Your task to perform on an android device: Do I have any events today? Image 0: 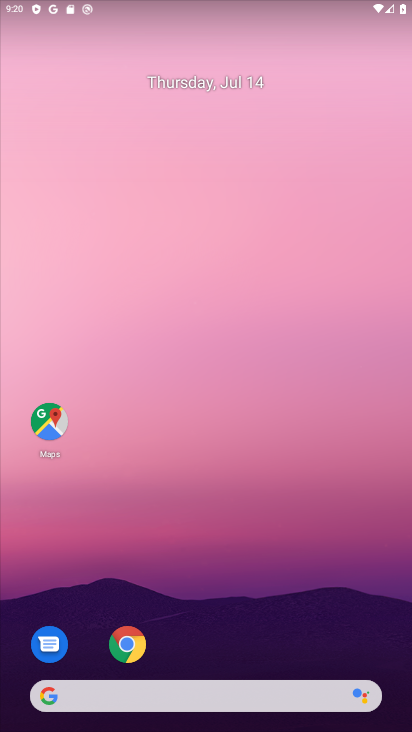
Step 0: drag from (239, 631) to (291, 124)
Your task to perform on an android device: Do I have any events today? Image 1: 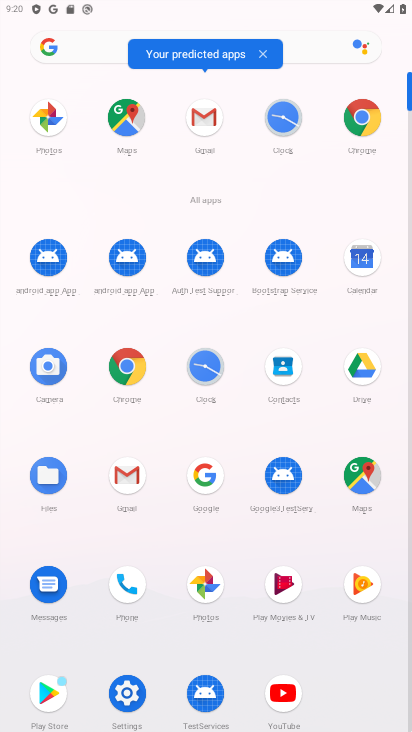
Step 1: click (356, 251)
Your task to perform on an android device: Do I have any events today? Image 2: 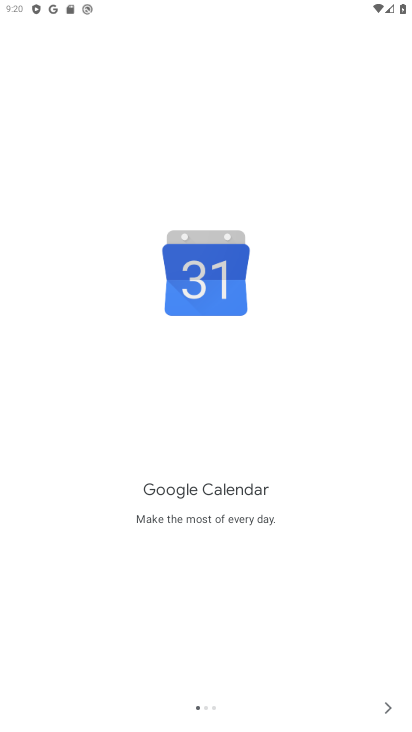
Step 2: click (387, 700)
Your task to perform on an android device: Do I have any events today? Image 3: 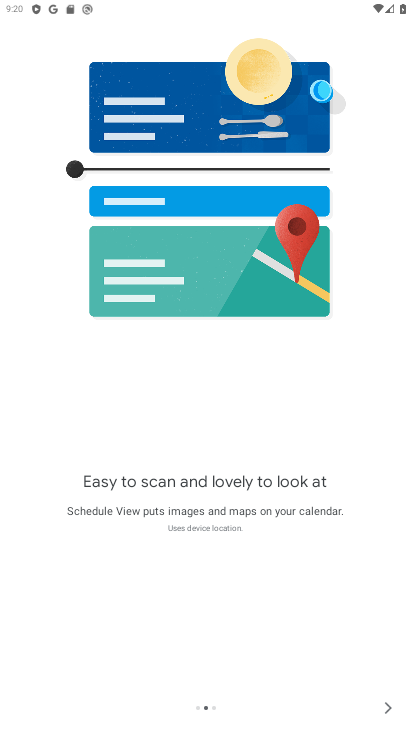
Step 3: click (386, 701)
Your task to perform on an android device: Do I have any events today? Image 4: 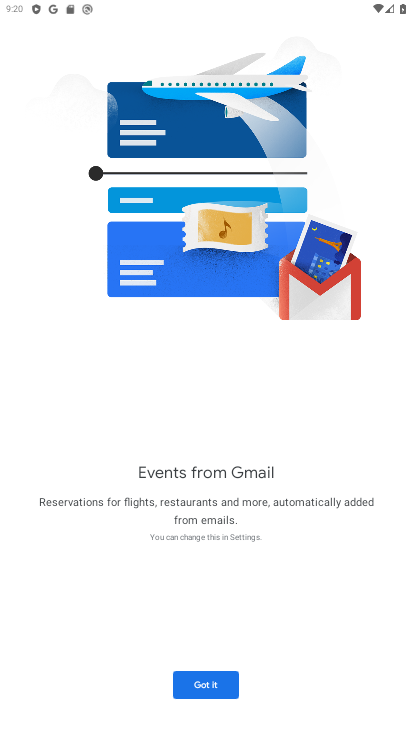
Step 4: click (212, 678)
Your task to perform on an android device: Do I have any events today? Image 5: 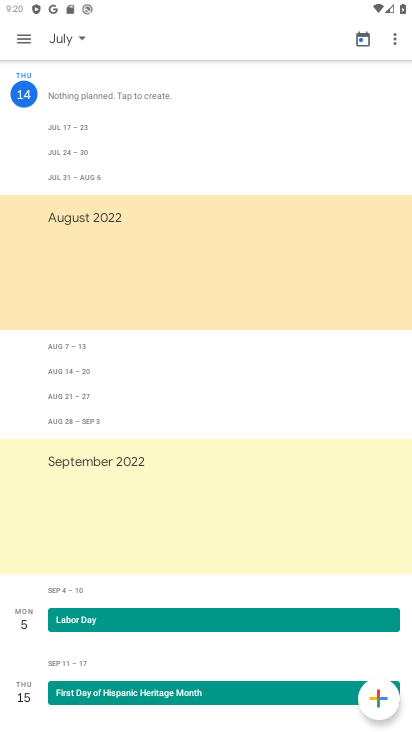
Step 5: task complete